Your task to perform on an android device: open app "Facebook Messenger" (install if not already installed) Image 0: 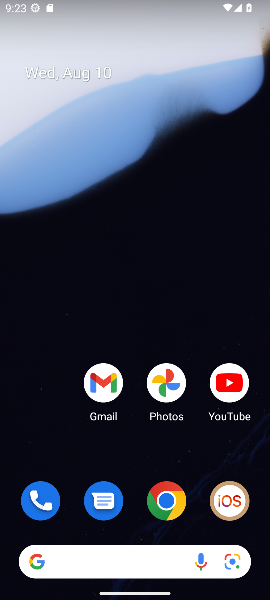
Step 0: drag from (143, 538) to (146, 137)
Your task to perform on an android device: open app "Facebook Messenger" (install if not already installed) Image 1: 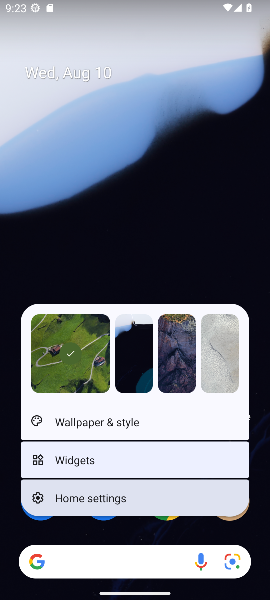
Step 1: drag from (146, 137) to (67, 211)
Your task to perform on an android device: open app "Facebook Messenger" (install if not already installed) Image 2: 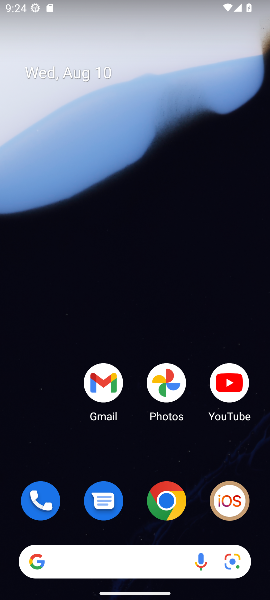
Step 2: click (129, 482)
Your task to perform on an android device: open app "Facebook Messenger" (install if not already installed) Image 3: 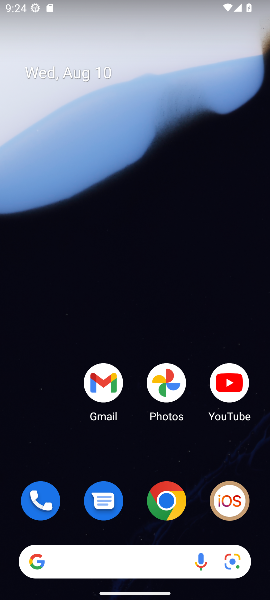
Step 3: drag from (141, 534) to (141, 236)
Your task to perform on an android device: open app "Facebook Messenger" (install if not already installed) Image 4: 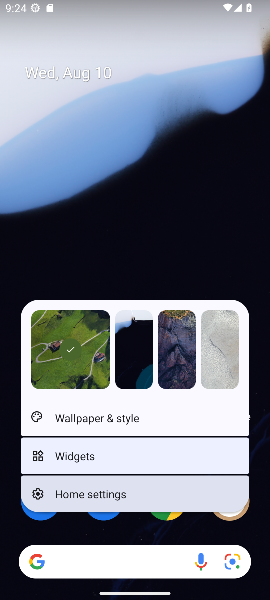
Step 4: click (141, 236)
Your task to perform on an android device: open app "Facebook Messenger" (install if not already installed) Image 5: 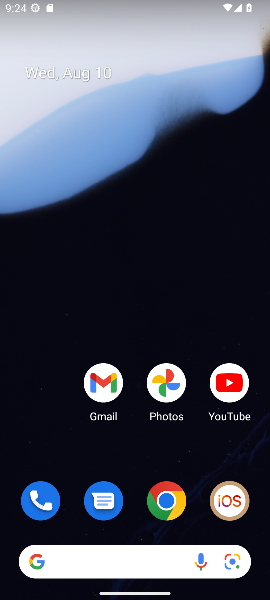
Step 5: click (141, 236)
Your task to perform on an android device: open app "Facebook Messenger" (install if not already installed) Image 6: 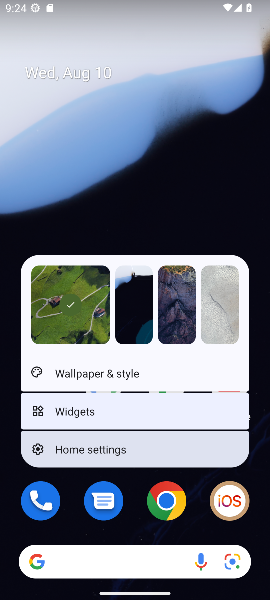
Step 6: task complete